Your task to perform on an android device: visit the assistant section in the google photos Image 0: 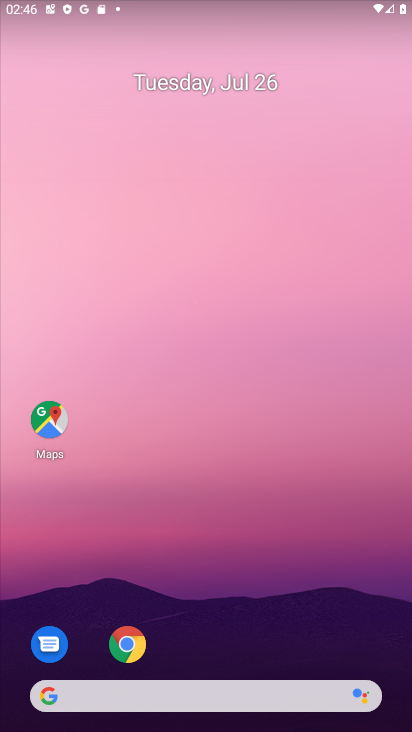
Step 0: drag from (218, 660) to (214, 134)
Your task to perform on an android device: visit the assistant section in the google photos Image 1: 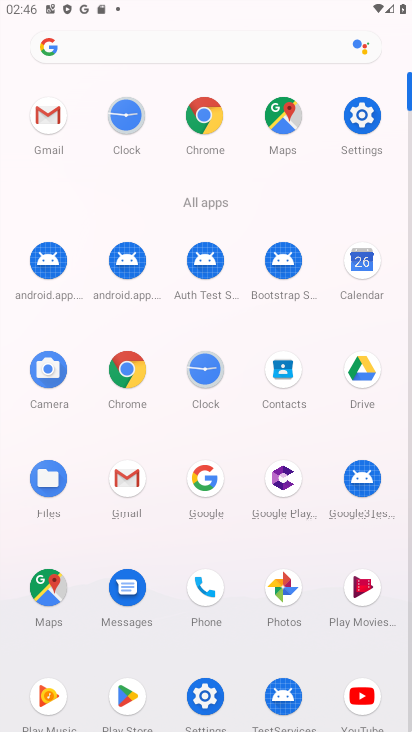
Step 1: click (273, 589)
Your task to perform on an android device: visit the assistant section in the google photos Image 2: 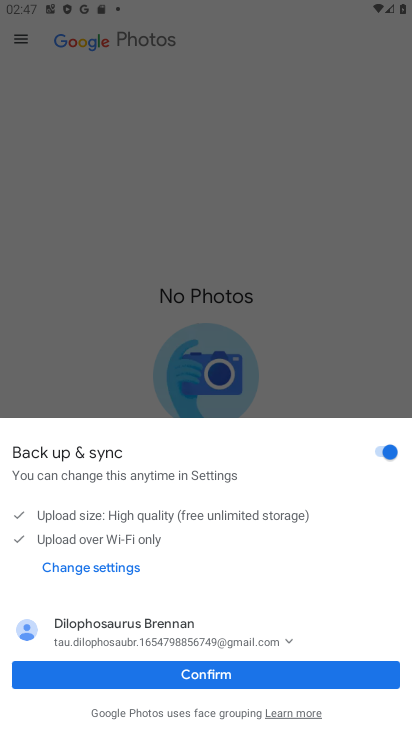
Step 2: click (248, 674)
Your task to perform on an android device: visit the assistant section in the google photos Image 3: 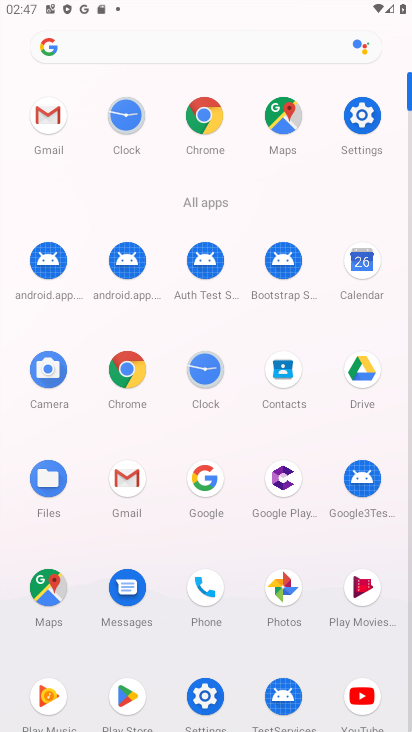
Step 3: click (286, 596)
Your task to perform on an android device: visit the assistant section in the google photos Image 4: 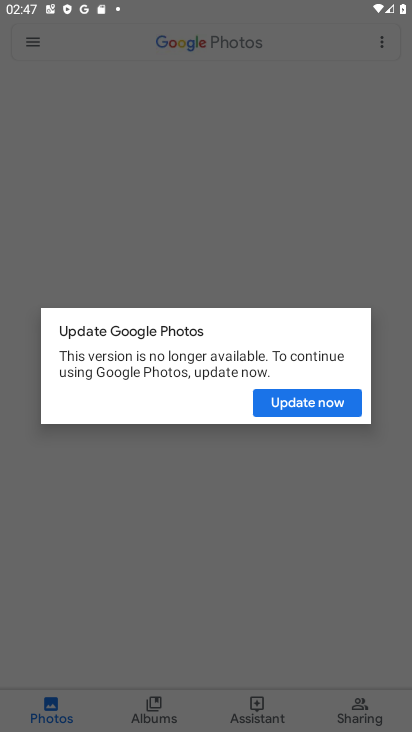
Step 4: click (302, 392)
Your task to perform on an android device: visit the assistant section in the google photos Image 5: 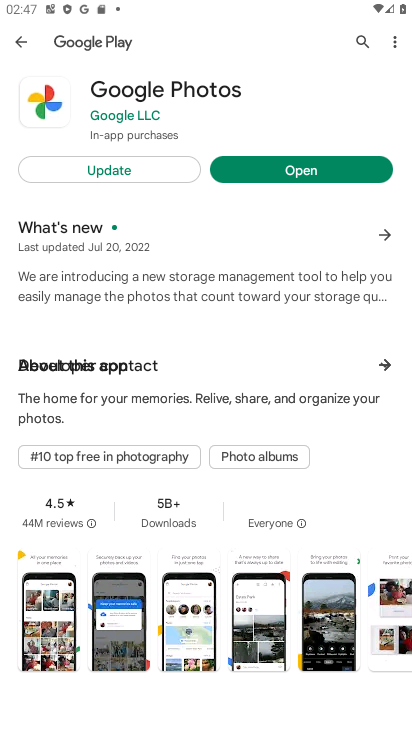
Step 5: click (309, 178)
Your task to perform on an android device: visit the assistant section in the google photos Image 6: 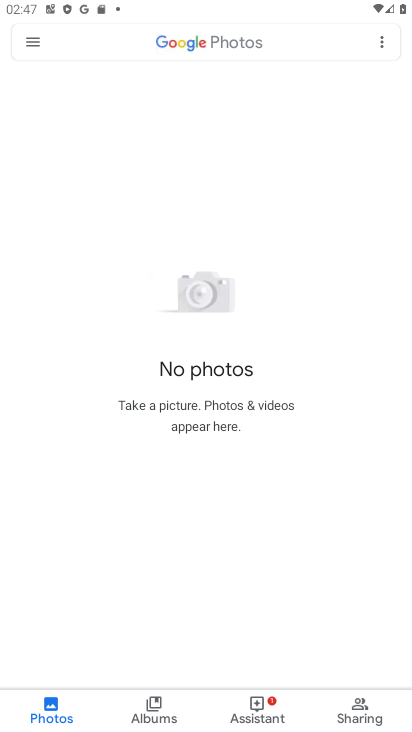
Step 6: click (264, 701)
Your task to perform on an android device: visit the assistant section in the google photos Image 7: 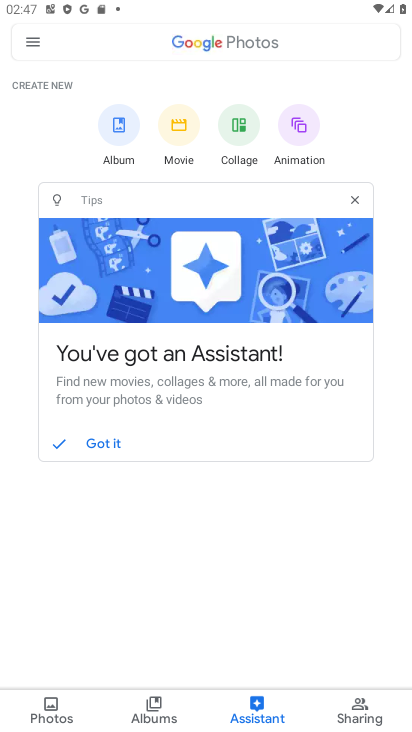
Step 7: task complete